Your task to perform on an android device: empty trash in google photos Image 0: 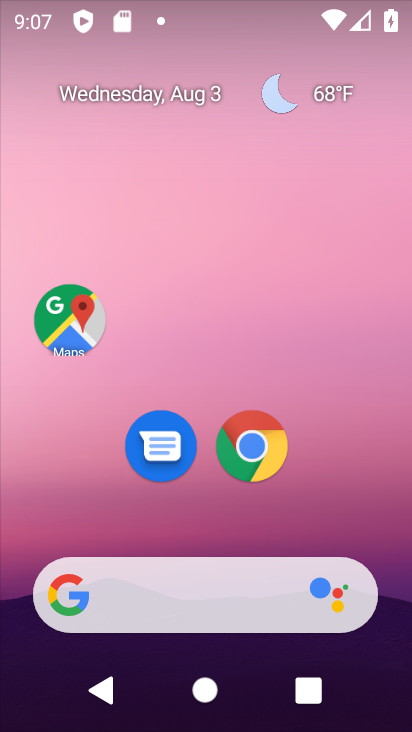
Step 0: drag from (406, 706) to (242, 152)
Your task to perform on an android device: empty trash in google photos Image 1: 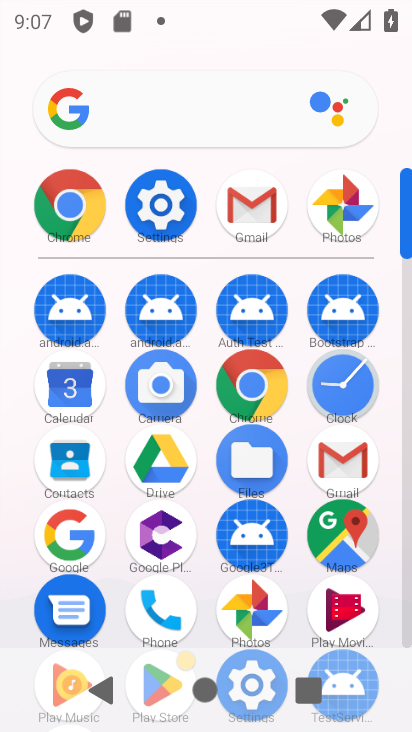
Step 1: click (258, 603)
Your task to perform on an android device: empty trash in google photos Image 2: 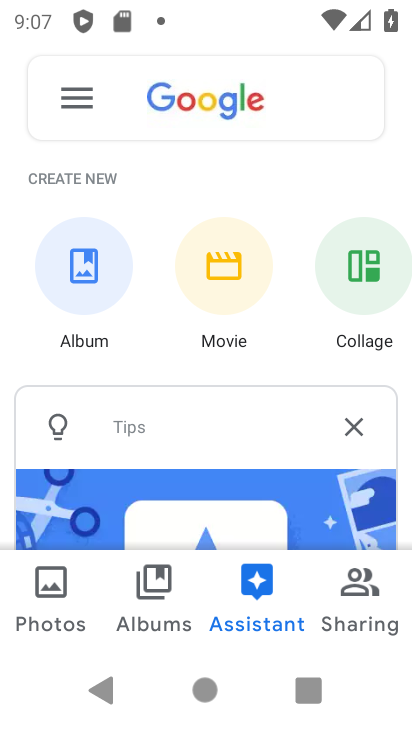
Step 2: click (86, 98)
Your task to perform on an android device: empty trash in google photos Image 3: 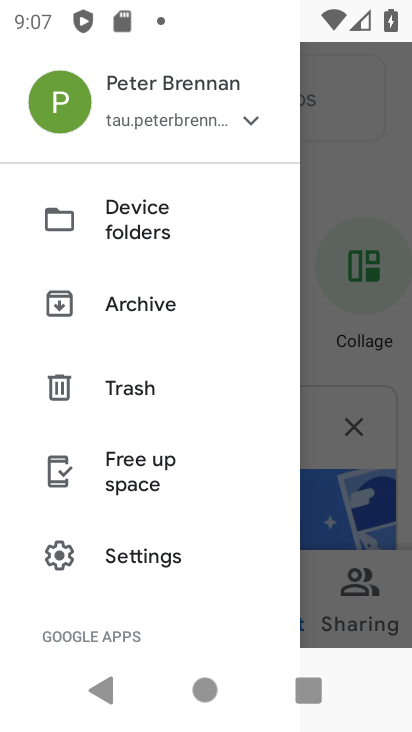
Step 3: click (126, 379)
Your task to perform on an android device: empty trash in google photos Image 4: 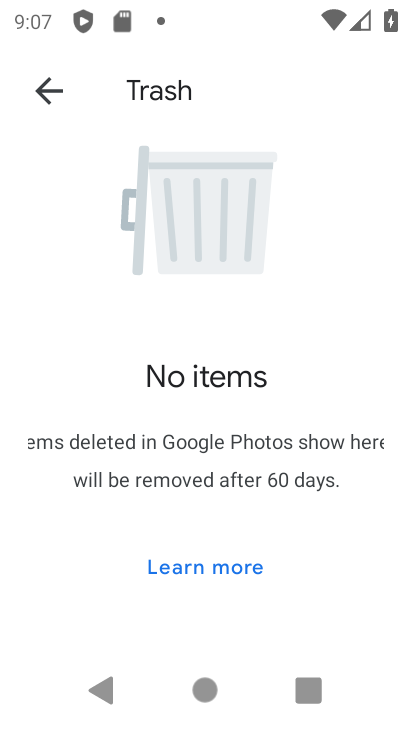
Step 4: task complete